Your task to perform on an android device: turn on sleep mode Image 0: 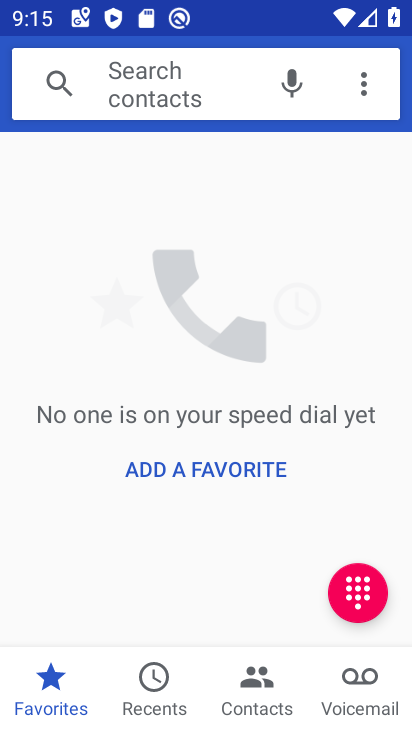
Step 0: press home button
Your task to perform on an android device: turn on sleep mode Image 1: 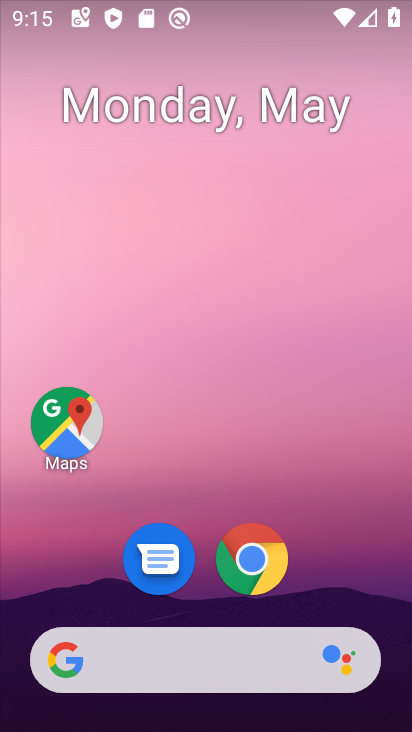
Step 1: drag from (325, 536) to (38, 414)
Your task to perform on an android device: turn on sleep mode Image 2: 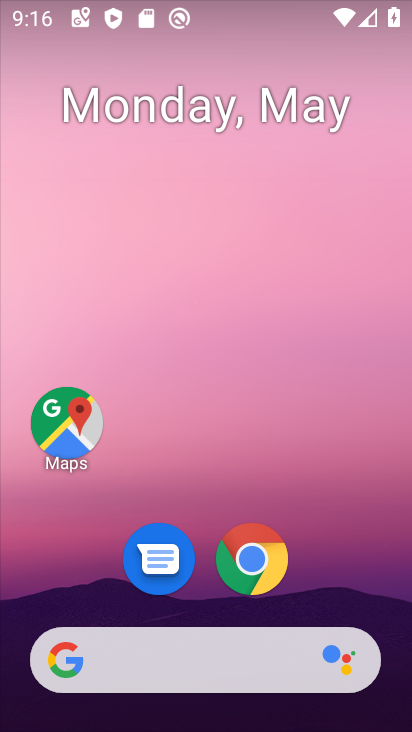
Step 2: click (69, 245)
Your task to perform on an android device: turn on sleep mode Image 3: 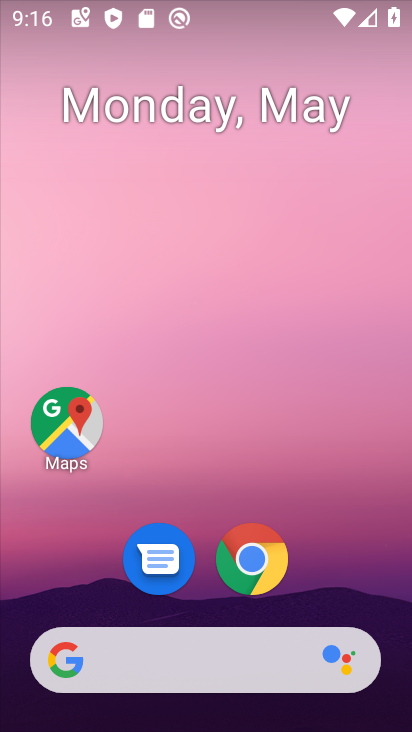
Step 3: drag from (331, 555) to (198, 84)
Your task to perform on an android device: turn on sleep mode Image 4: 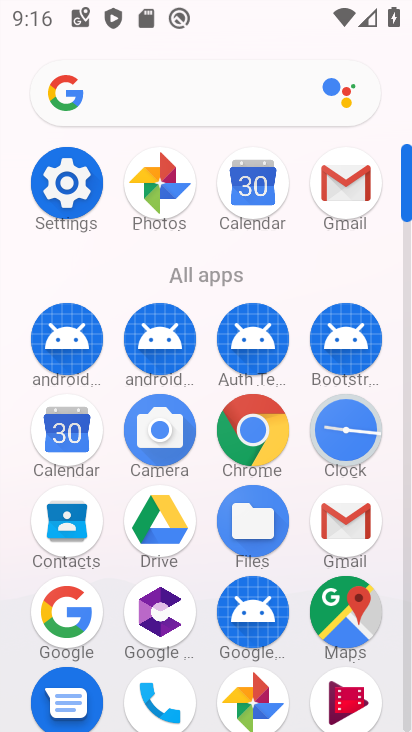
Step 4: click (65, 191)
Your task to perform on an android device: turn on sleep mode Image 5: 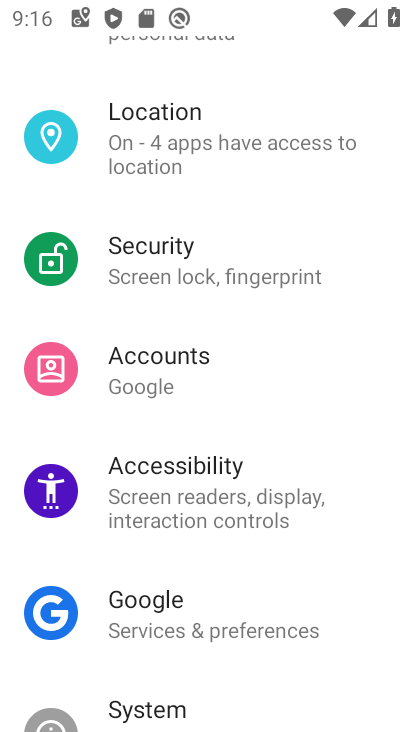
Step 5: drag from (175, 406) to (146, 172)
Your task to perform on an android device: turn on sleep mode Image 6: 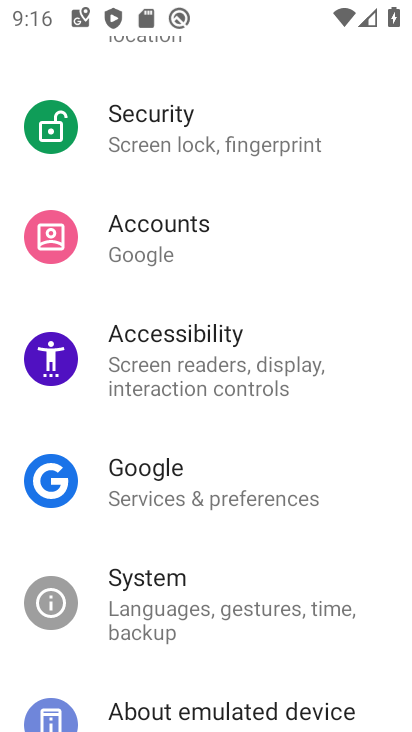
Step 6: click (163, 181)
Your task to perform on an android device: turn on sleep mode Image 7: 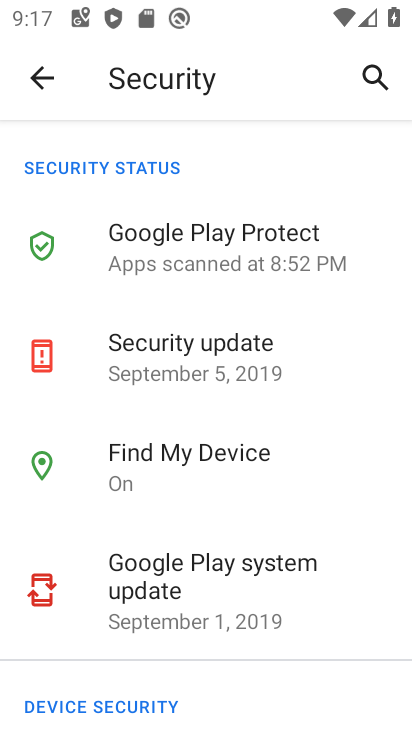
Step 7: task complete